Your task to perform on an android device: turn off translation in the chrome app Image 0: 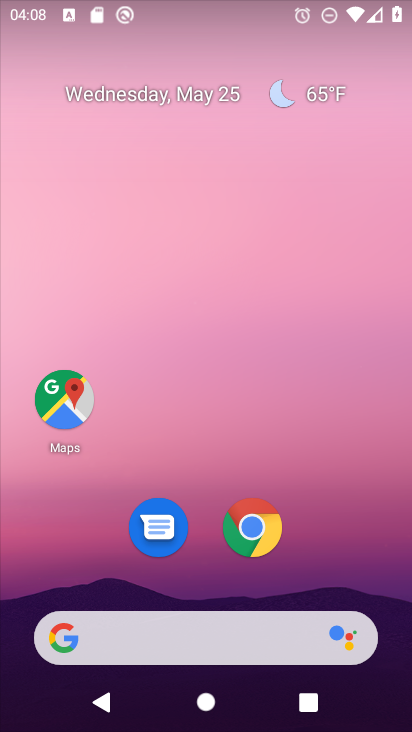
Step 0: drag from (212, 555) to (275, 8)
Your task to perform on an android device: turn off translation in the chrome app Image 1: 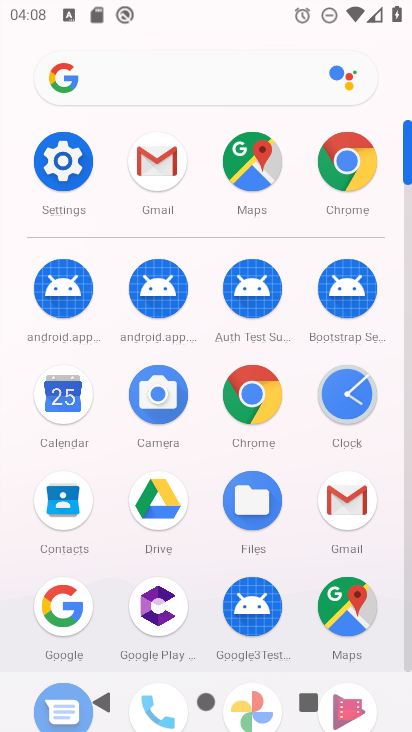
Step 1: click (262, 414)
Your task to perform on an android device: turn off translation in the chrome app Image 2: 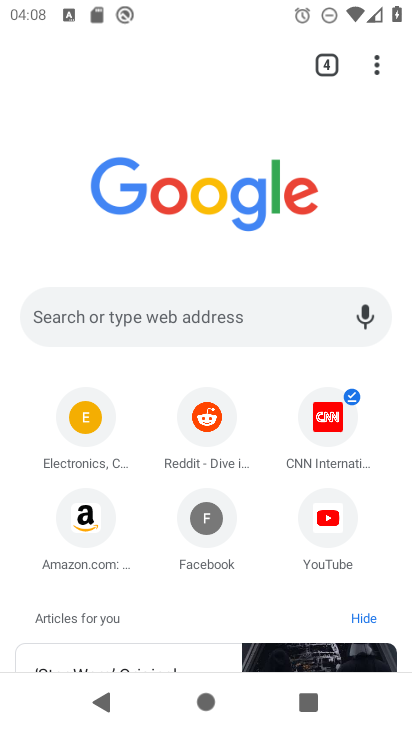
Step 2: click (380, 68)
Your task to perform on an android device: turn off translation in the chrome app Image 3: 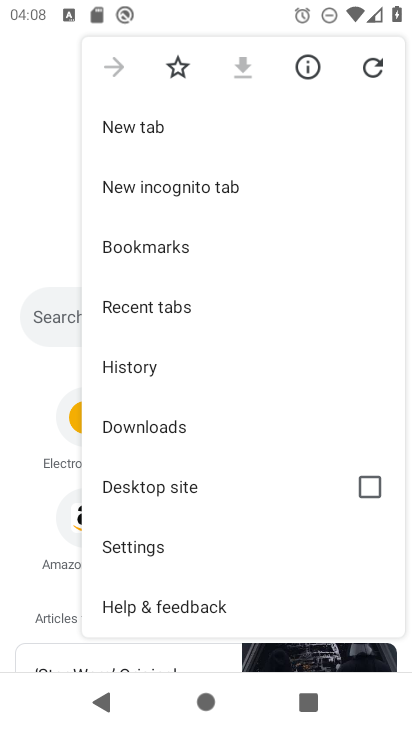
Step 3: click (162, 552)
Your task to perform on an android device: turn off translation in the chrome app Image 4: 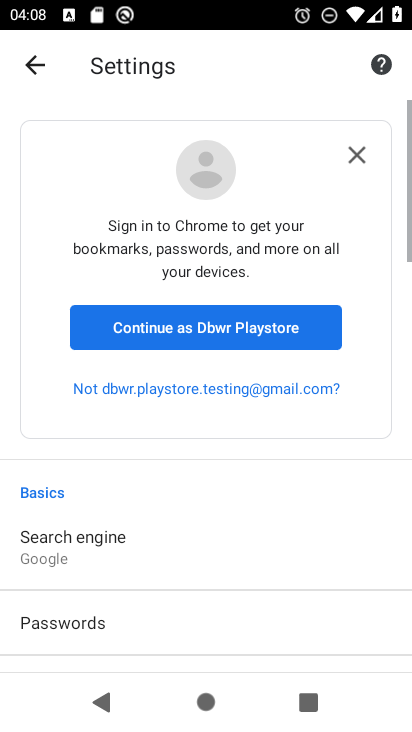
Step 4: drag from (232, 590) to (360, 14)
Your task to perform on an android device: turn off translation in the chrome app Image 5: 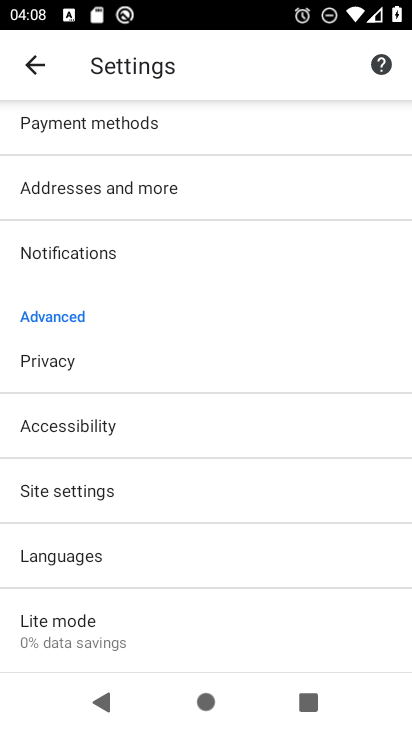
Step 5: click (131, 513)
Your task to perform on an android device: turn off translation in the chrome app Image 6: 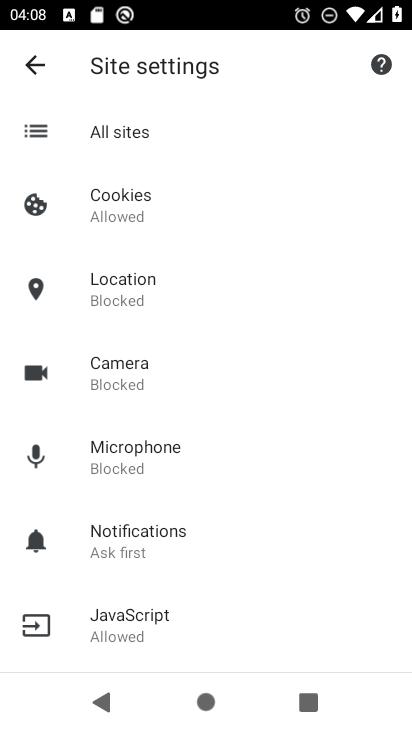
Step 6: press back button
Your task to perform on an android device: turn off translation in the chrome app Image 7: 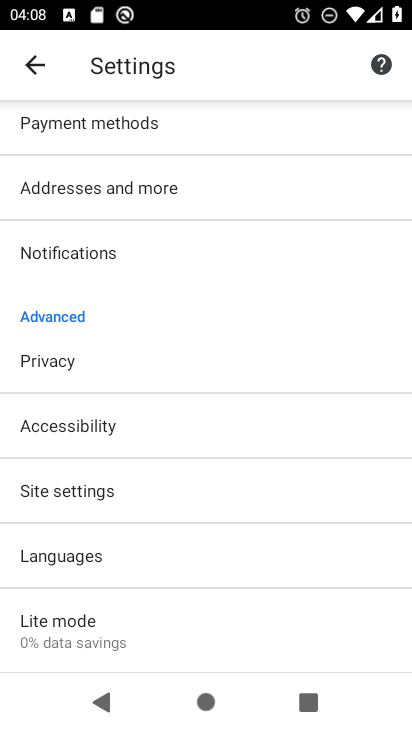
Step 7: click (92, 651)
Your task to perform on an android device: turn off translation in the chrome app Image 8: 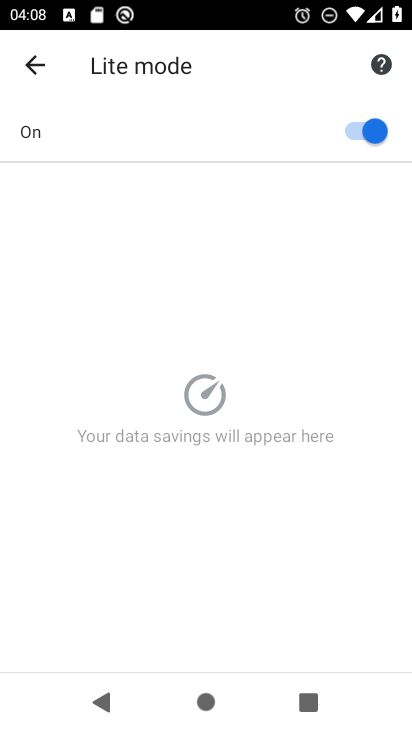
Step 8: press back button
Your task to perform on an android device: turn off translation in the chrome app Image 9: 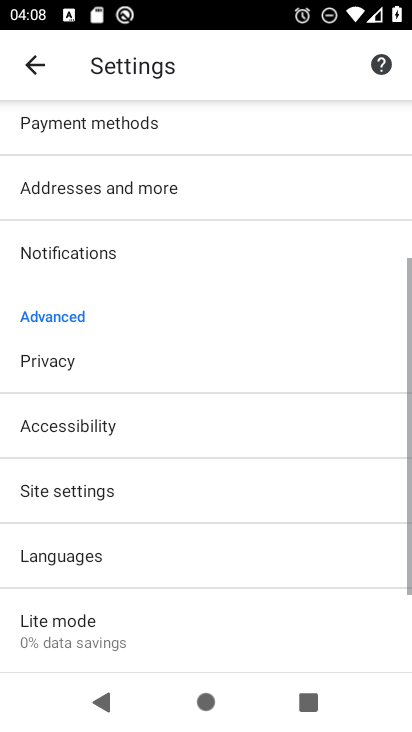
Step 9: click (109, 566)
Your task to perform on an android device: turn off translation in the chrome app Image 10: 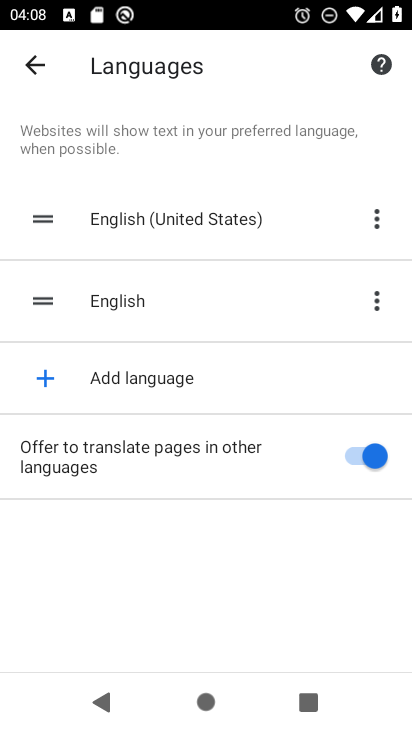
Step 10: click (344, 451)
Your task to perform on an android device: turn off translation in the chrome app Image 11: 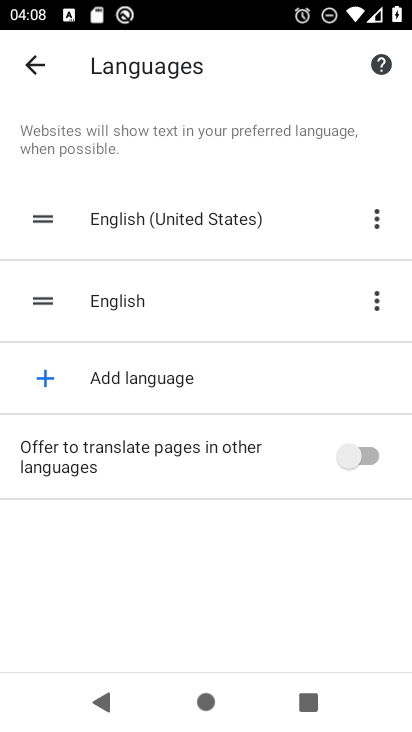
Step 11: task complete